Your task to perform on an android device: toggle notifications settings in the gmail app Image 0: 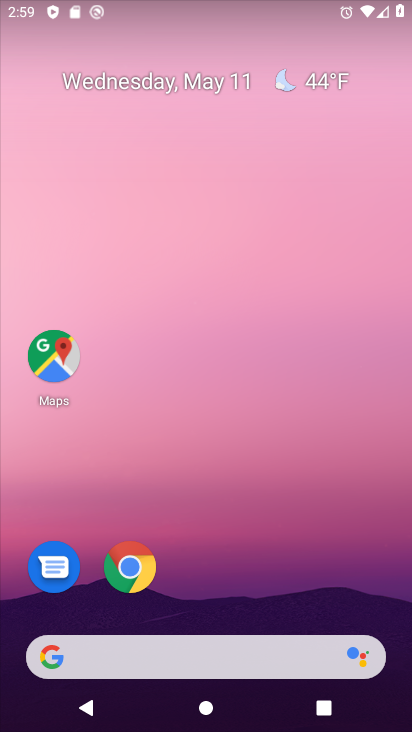
Step 0: drag from (221, 537) to (173, 30)
Your task to perform on an android device: toggle notifications settings in the gmail app Image 1: 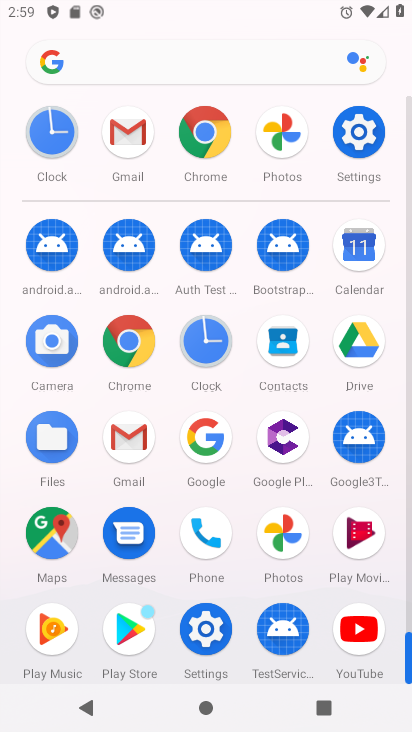
Step 1: drag from (8, 534) to (5, 159)
Your task to perform on an android device: toggle notifications settings in the gmail app Image 2: 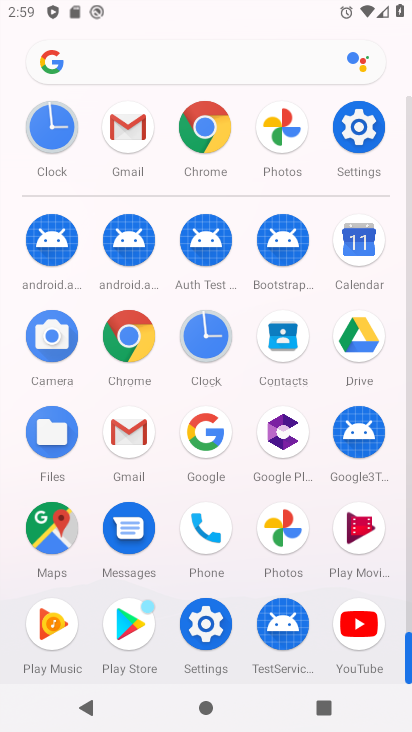
Step 2: click (124, 427)
Your task to perform on an android device: toggle notifications settings in the gmail app Image 3: 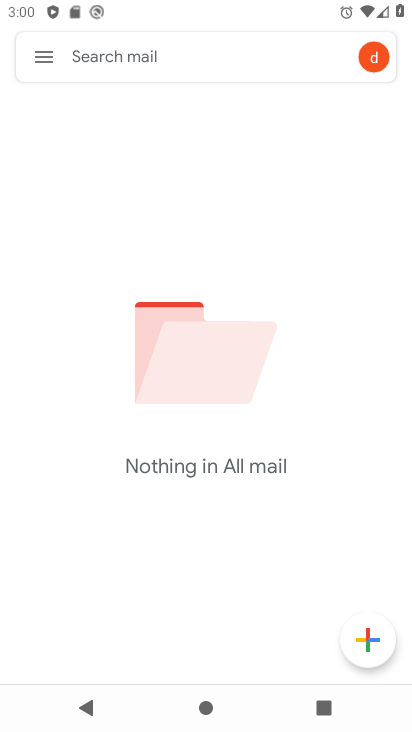
Step 3: click (48, 44)
Your task to perform on an android device: toggle notifications settings in the gmail app Image 4: 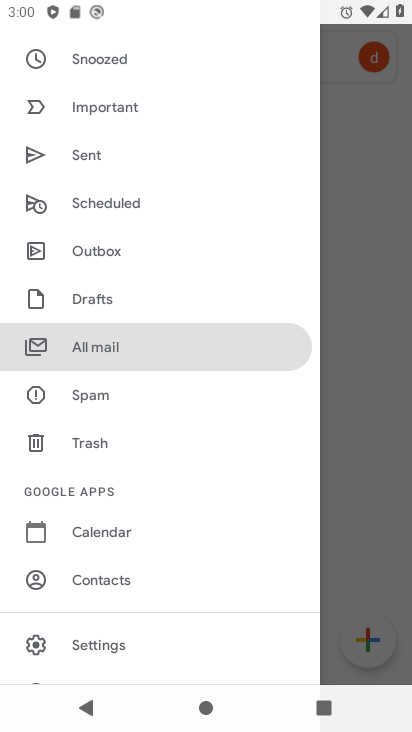
Step 4: click (95, 644)
Your task to perform on an android device: toggle notifications settings in the gmail app Image 5: 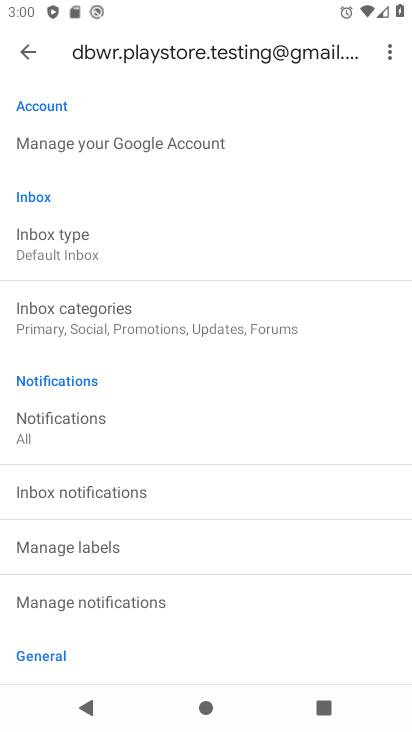
Step 5: click (122, 600)
Your task to perform on an android device: toggle notifications settings in the gmail app Image 6: 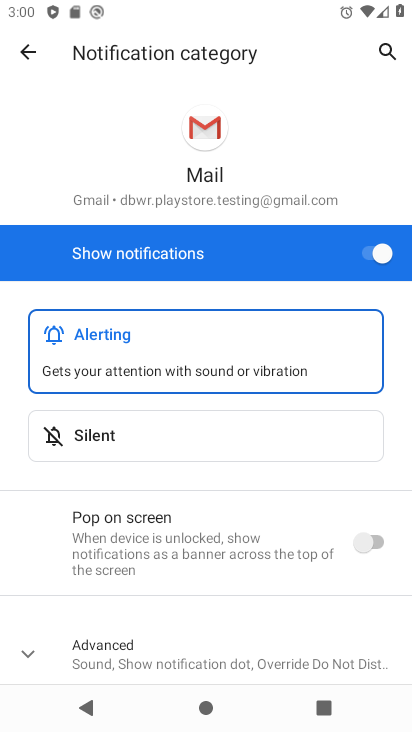
Step 6: click (375, 256)
Your task to perform on an android device: toggle notifications settings in the gmail app Image 7: 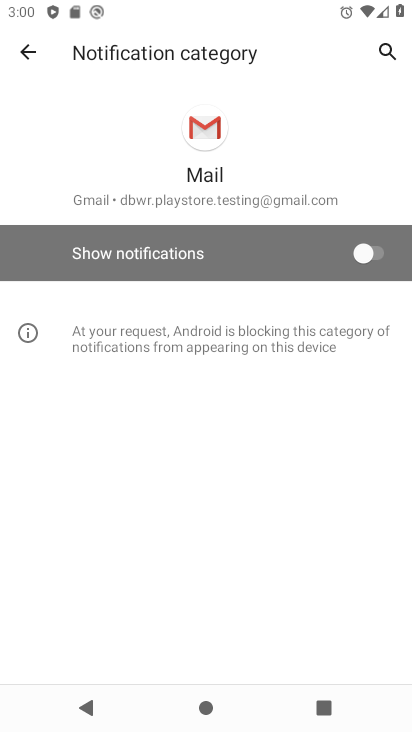
Step 7: task complete